Your task to perform on an android device: snooze an email in the gmail app Image 0: 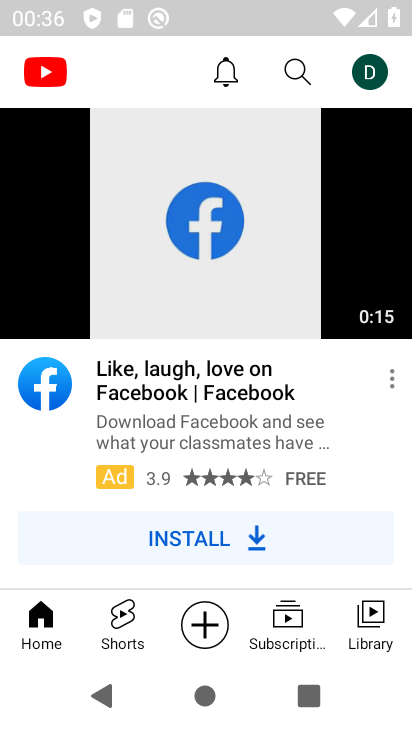
Step 0: press home button
Your task to perform on an android device: snooze an email in the gmail app Image 1: 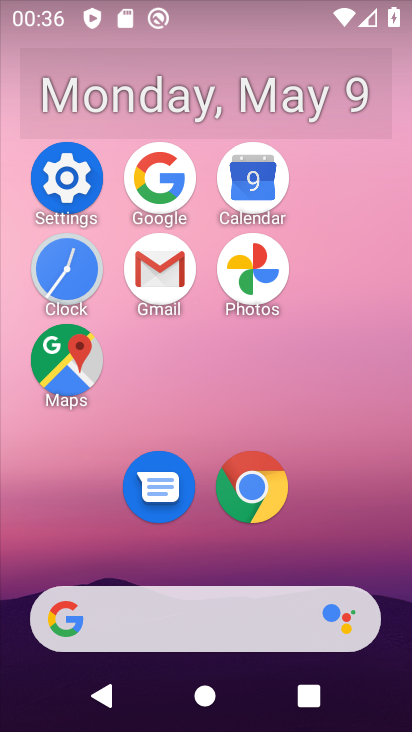
Step 1: click (165, 272)
Your task to perform on an android device: snooze an email in the gmail app Image 2: 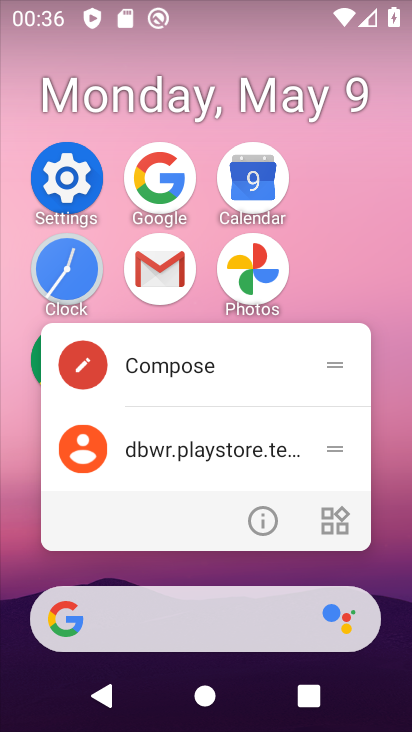
Step 2: click (171, 275)
Your task to perform on an android device: snooze an email in the gmail app Image 3: 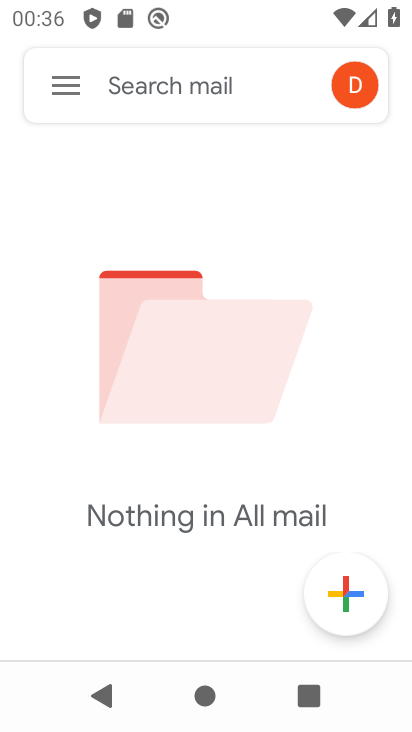
Step 3: click (55, 93)
Your task to perform on an android device: snooze an email in the gmail app Image 4: 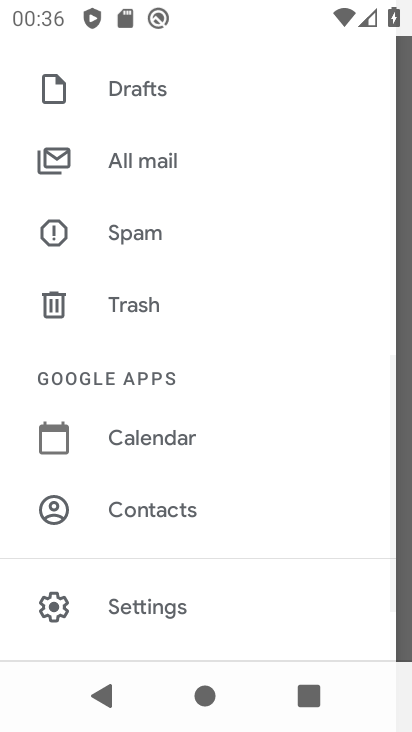
Step 4: click (183, 148)
Your task to perform on an android device: snooze an email in the gmail app Image 5: 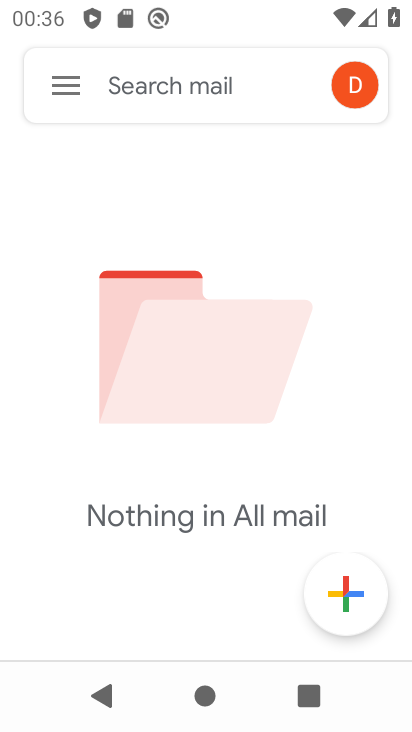
Step 5: task complete